Your task to perform on an android device: open the mobile data screen to see how much data has been used Image 0: 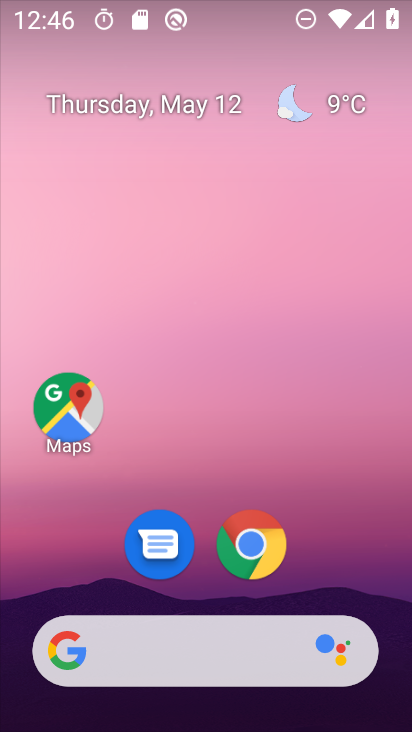
Step 0: drag from (213, 726) to (181, 198)
Your task to perform on an android device: open the mobile data screen to see how much data has been used Image 1: 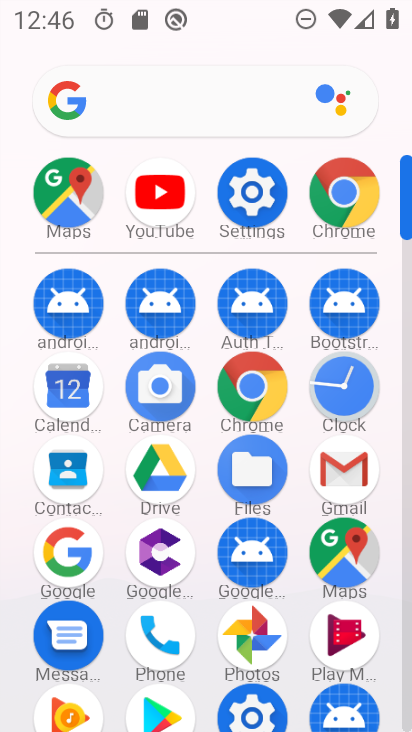
Step 1: click (246, 195)
Your task to perform on an android device: open the mobile data screen to see how much data has been used Image 2: 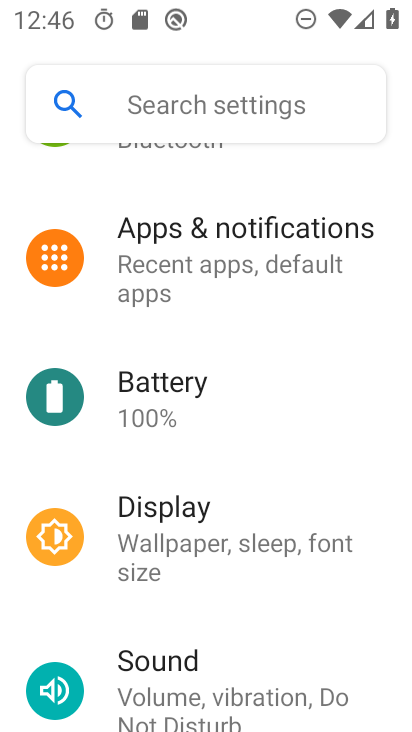
Step 2: drag from (212, 271) to (232, 629)
Your task to perform on an android device: open the mobile data screen to see how much data has been used Image 3: 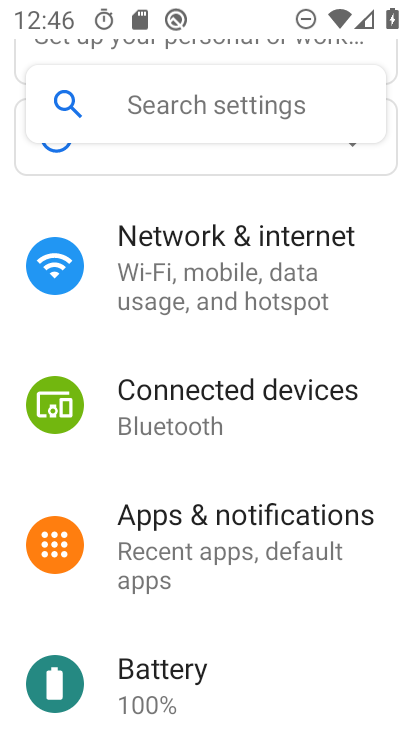
Step 3: click (182, 293)
Your task to perform on an android device: open the mobile data screen to see how much data has been used Image 4: 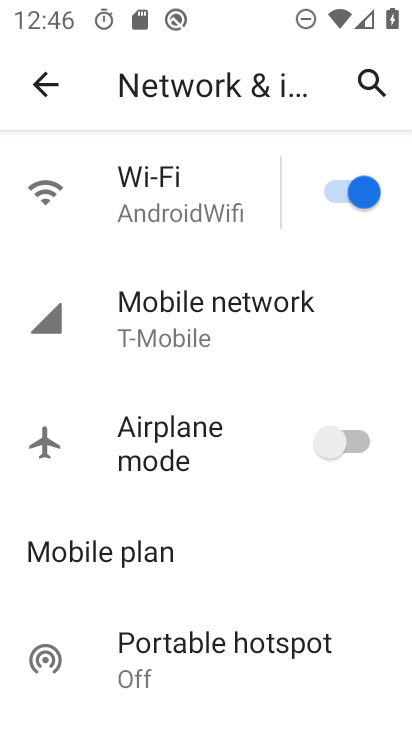
Step 4: click (166, 323)
Your task to perform on an android device: open the mobile data screen to see how much data has been used Image 5: 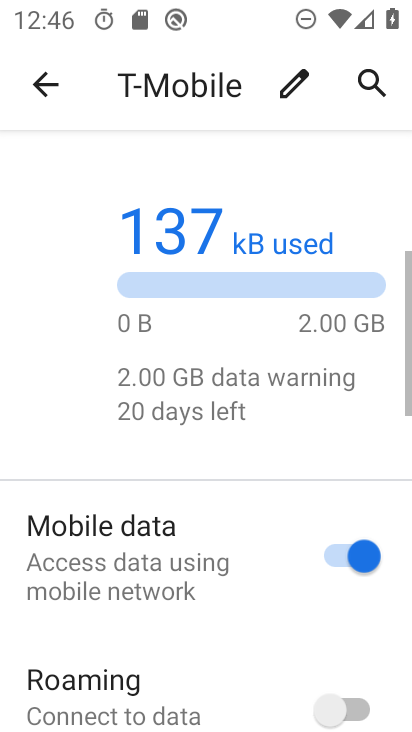
Step 5: drag from (215, 686) to (191, 269)
Your task to perform on an android device: open the mobile data screen to see how much data has been used Image 6: 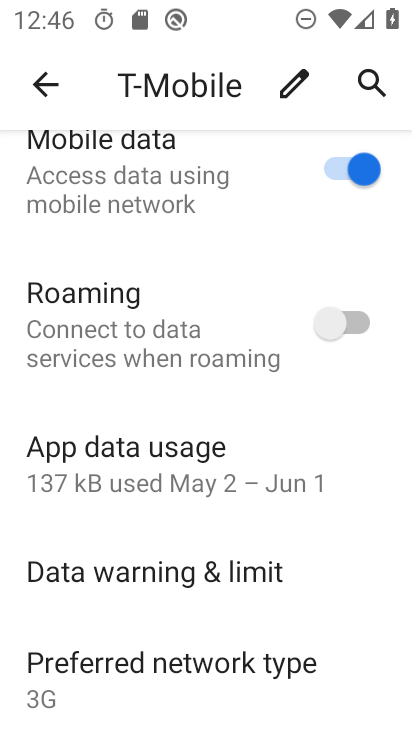
Step 6: click (158, 458)
Your task to perform on an android device: open the mobile data screen to see how much data has been used Image 7: 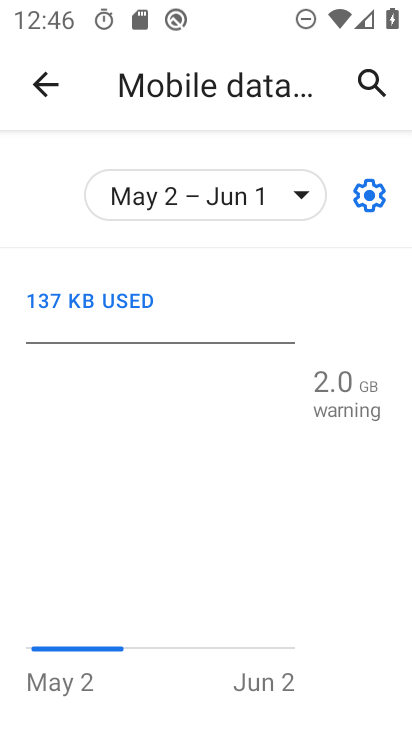
Step 7: task complete